Your task to perform on an android device: Open the phone app and click the voicemail tab. Image 0: 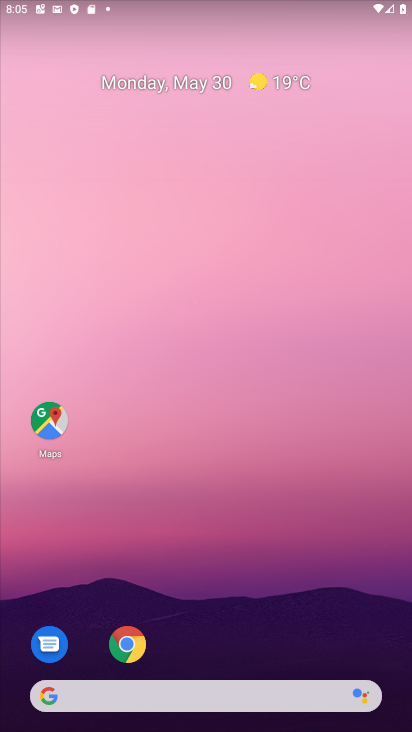
Step 0: drag from (177, 611) to (269, 134)
Your task to perform on an android device: Open the phone app and click the voicemail tab. Image 1: 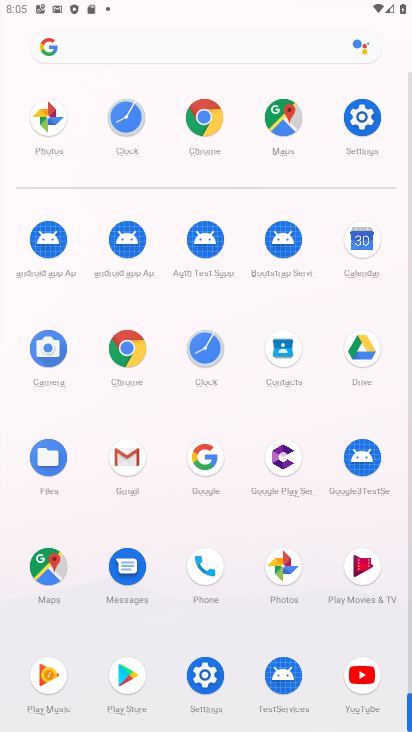
Step 1: click (203, 561)
Your task to perform on an android device: Open the phone app and click the voicemail tab. Image 2: 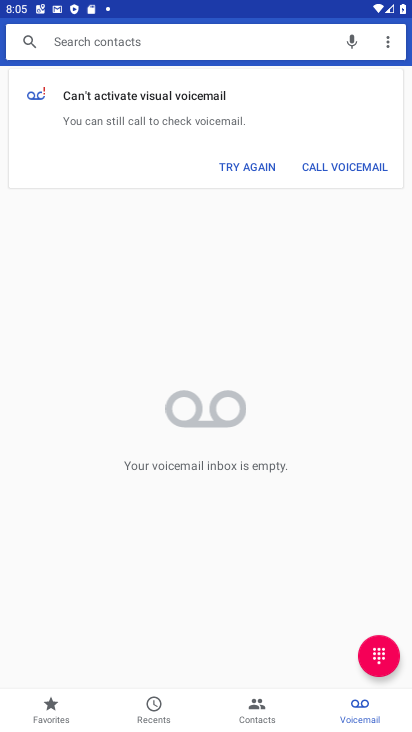
Step 2: click (357, 709)
Your task to perform on an android device: Open the phone app and click the voicemail tab. Image 3: 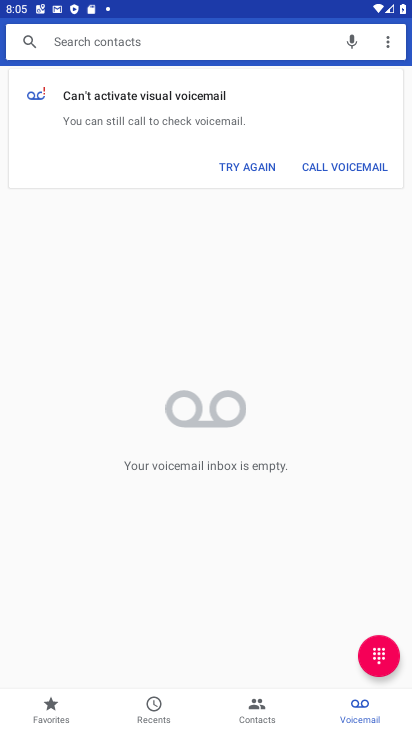
Step 3: task complete